Your task to perform on an android device: check storage Image 0: 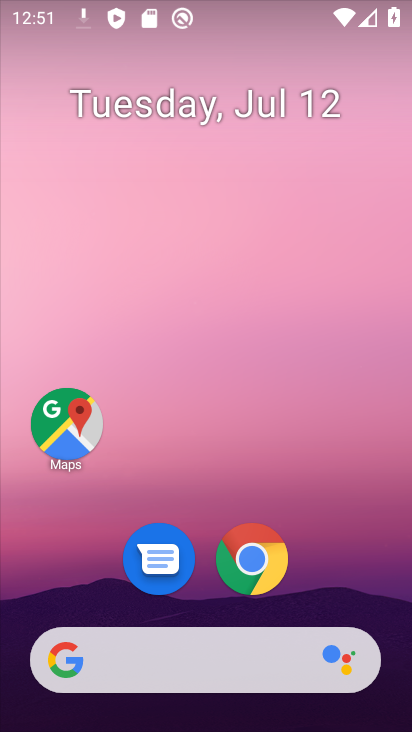
Step 0: drag from (356, 584) to (376, 275)
Your task to perform on an android device: check storage Image 1: 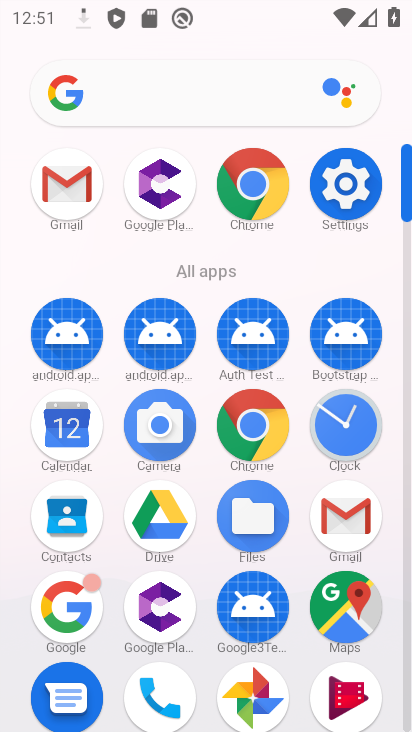
Step 1: click (347, 199)
Your task to perform on an android device: check storage Image 2: 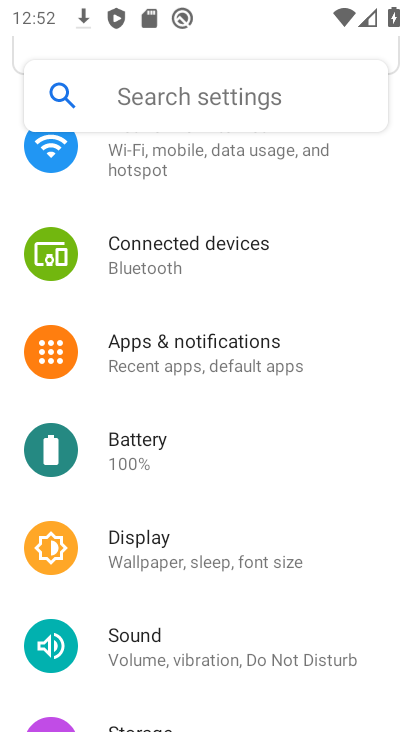
Step 2: drag from (360, 592) to (367, 360)
Your task to perform on an android device: check storage Image 3: 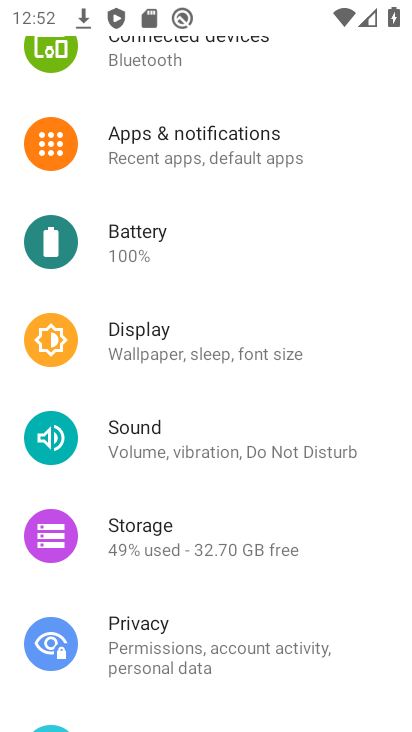
Step 3: drag from (359, 593) to (360, 371)
Your task to perform on an android device: check storage Image 4: 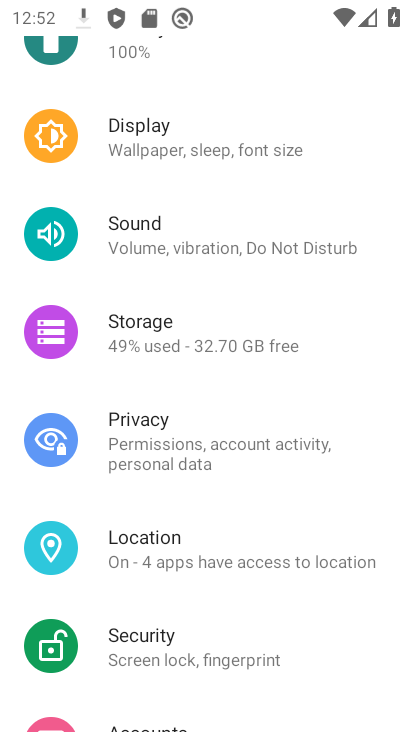
Step 4: drag from (359, 628) to (354, 414)
Your task to perform on an android device: check storage Image 5: 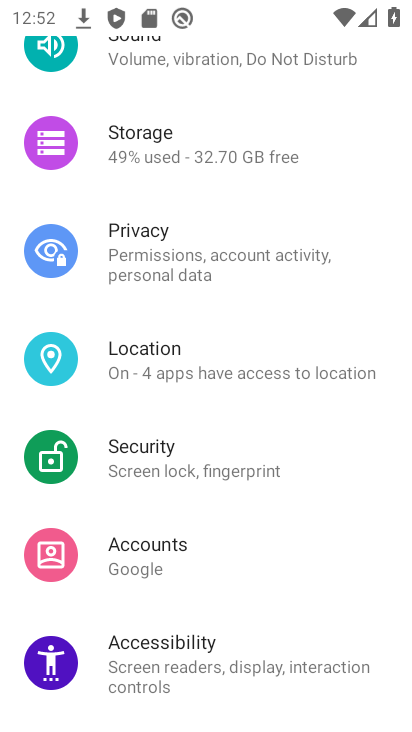
Step 5: drag from (339, 631) to (319, 434)
Your task to perform on an android device: check storage Image 6: 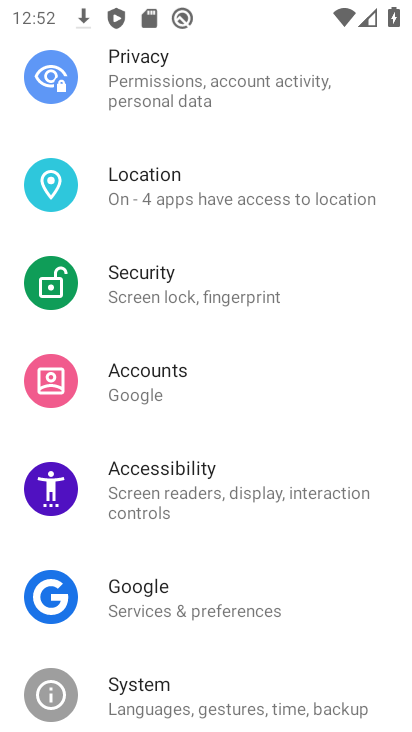
Step 6: drag from (307, 646) to (306, 409)
Your task to perform on an android device: check storage Image 7: 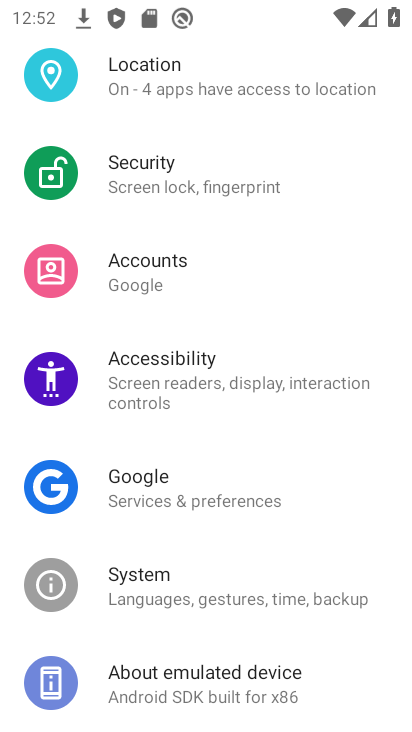
Step 7: drag from (322, 277) to (350, 440)
Your task to perform on an android device: check storage Image 8: 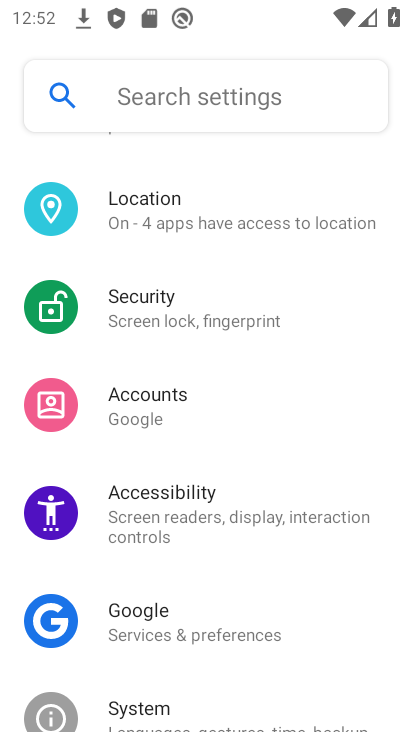
Step 8: drag from (345, 308) to (368, 495)
Your task to perform on an android device: check storage Image 9: 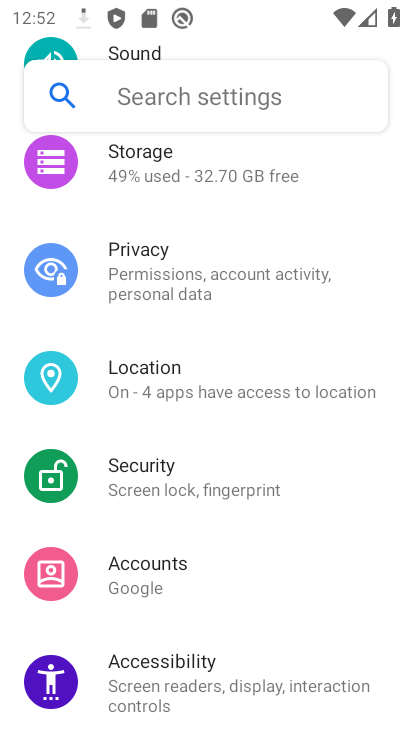
Step 9: drag from (337, 280) to (337, 523)
Your task to perform on an android device: check storage Image 10: 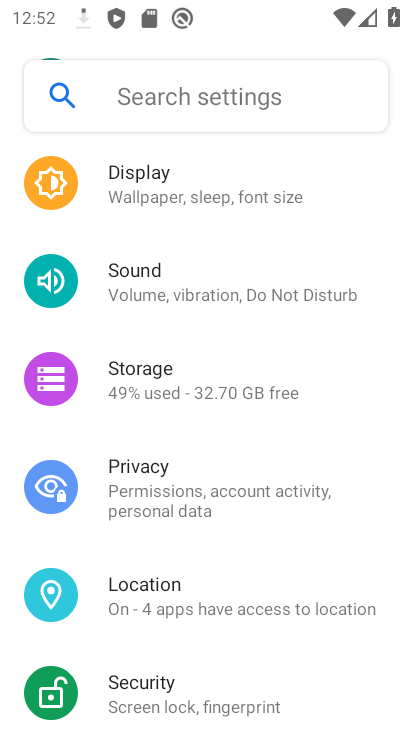
Step 10: click (167, 382)
Your task to perform on an android device: check storage Image 11: 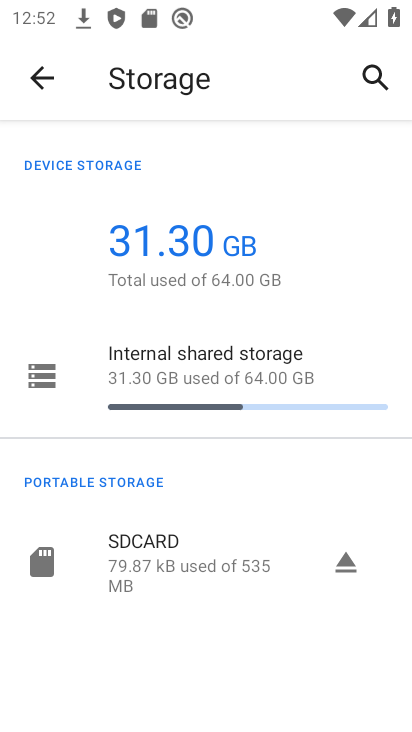
Step 11: task complete